Your task to perform on an android device: Go to battery settings Image 0: 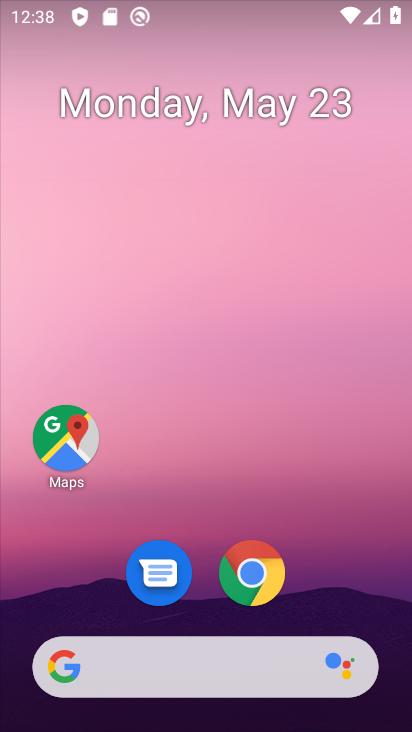
Step 0: drag from (257, 693) to (268, 20)
Your task to perform on an android device: Go to battery settings Image 1: 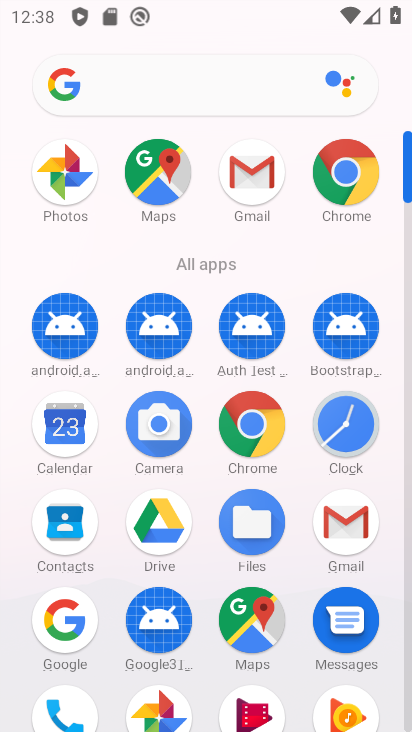
Step 1: drag from (289, 583) to (310, 89)
Your task to perform on an android device: Go to battery settings Image 2: 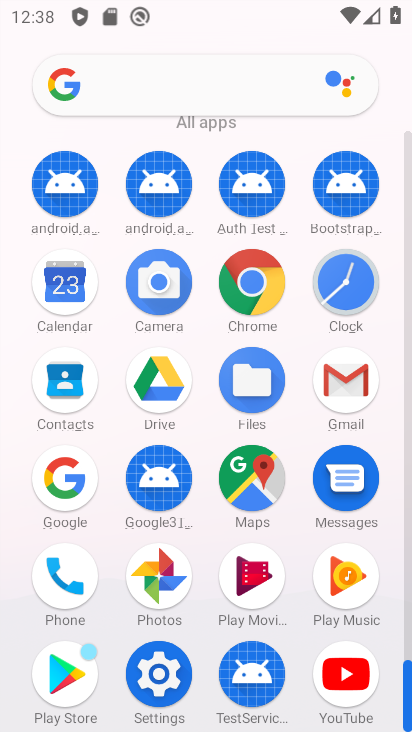
Step 2: click (169, 671)
Your task to perform on an android device: Go to battery settings Image 3: 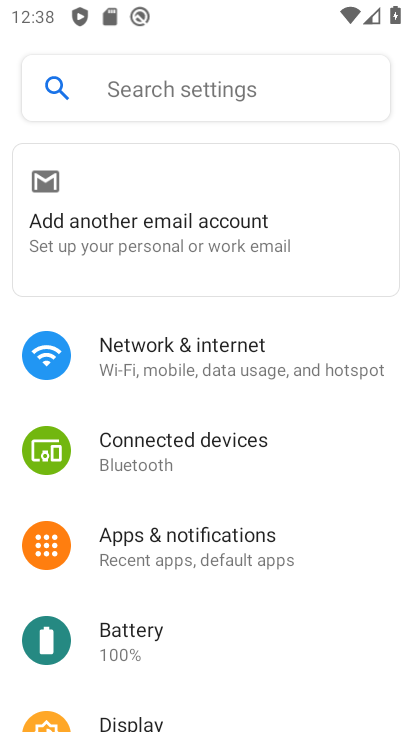
Step 3: click (145, 641)
Your task to perform on an android device: Go to battery settings Image 4: 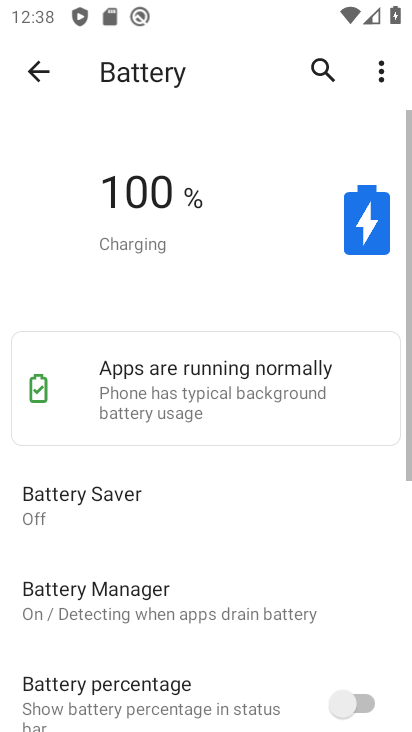
Step 4: task complete